Your task to perform on an android device: Go to Maps Image 0: 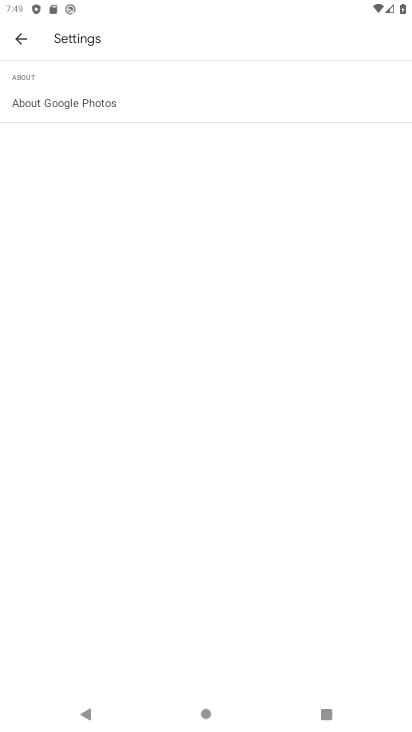
Step 0: press home button
Your task to perform on an android device: Go to Maps Image 1: 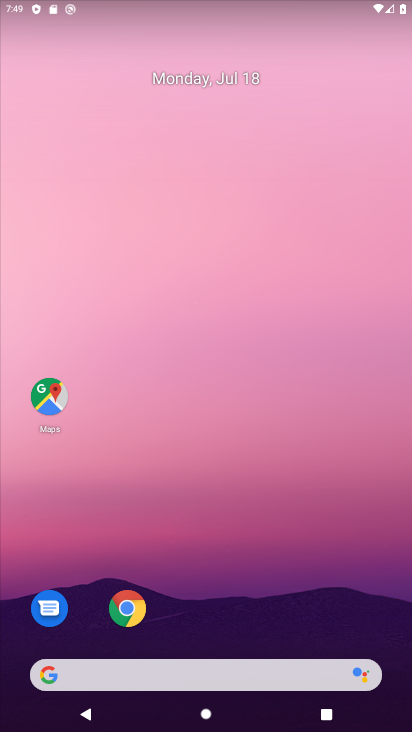
Step 1: click (35, 389)
Your task to perform on an android device: Go to Maps Image 2: 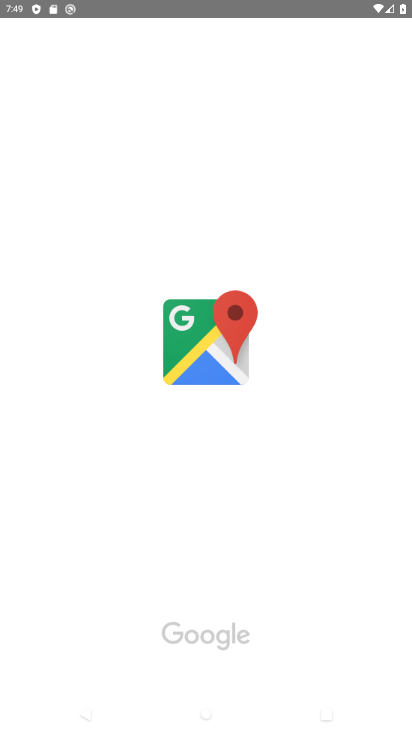
Step 2: click (35, 390)
Your task to perform on an android device: Go to Maps Image 3: 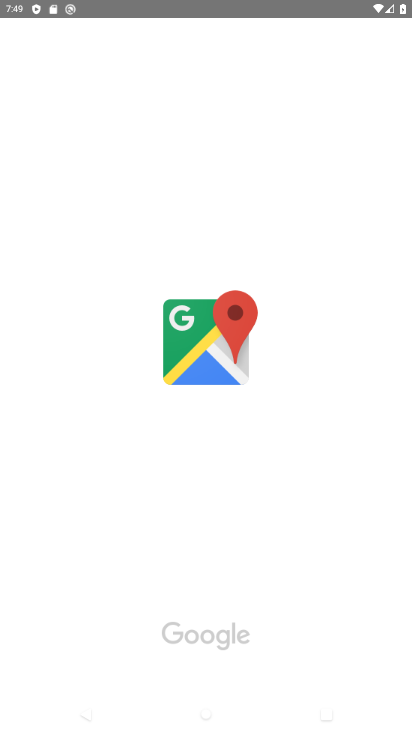
Step 3: click (35, 390)
Your task to perform on an android device: Go to Maps Image 4: 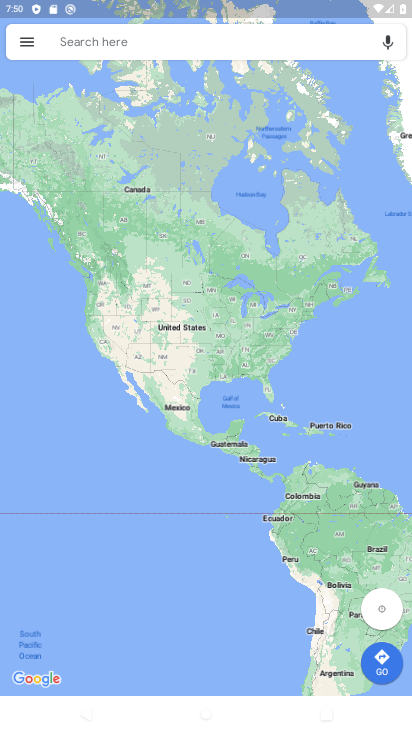
Step 4: task complete